Your task to perform on an android device: Go to wifi settings Image 0: 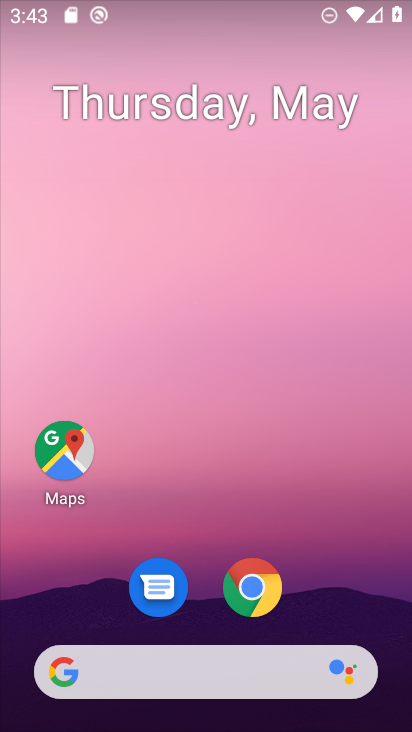
Step 0: drag from (369, 586) to (373, 171)
Your task to perform on an android device: Go to wifi settings Image 1: 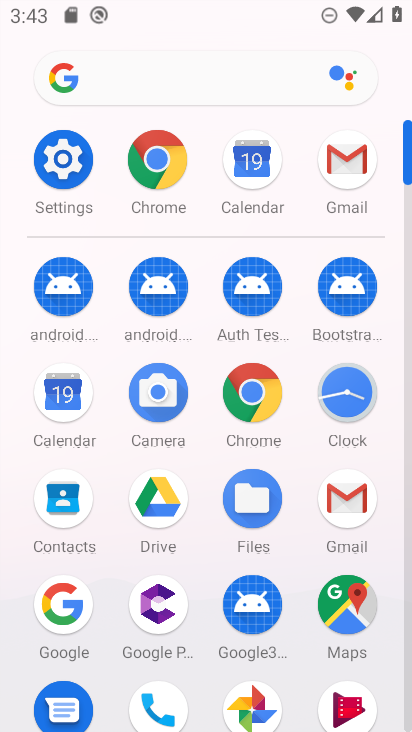
Step 1: click (95, 179)
Your task to perform on an android device: Go to wifi settings Image 2: 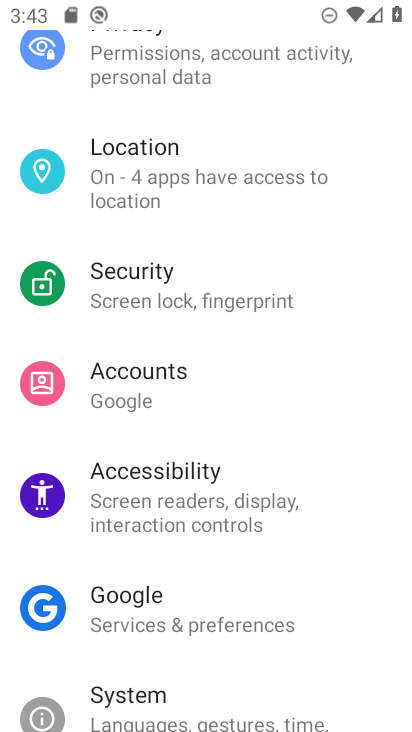
Step 2: drag from (305, 563) to (328, 423)
Your task to perform on an android device: Go to wifi settings Image 3: 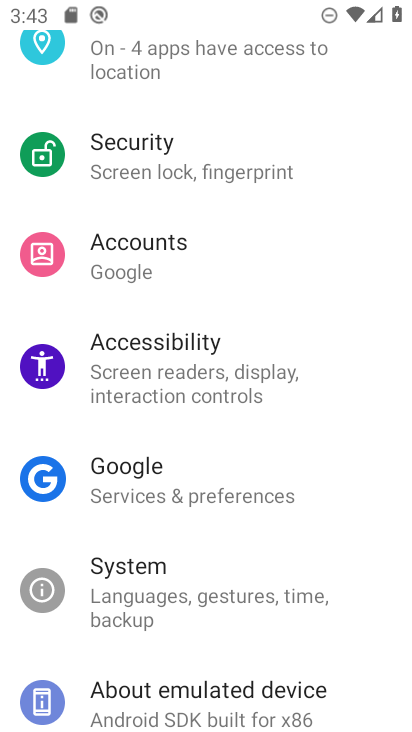
Step 3: drag from (339, 576) to (341, 450)
Your task to perform on an android device: Go to wifi settings Image 4: 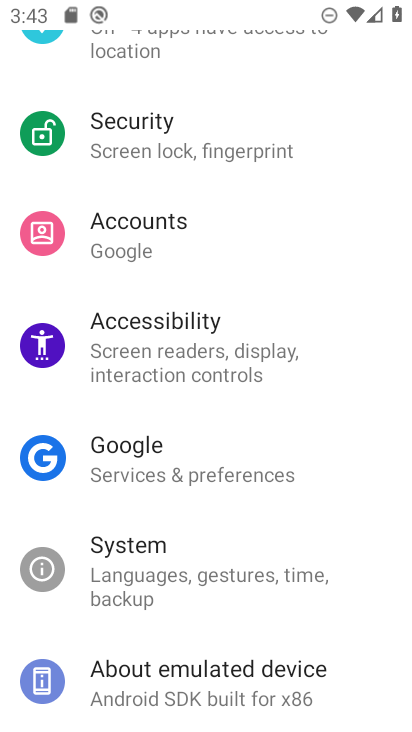
Step 4: drag from (342, 584) to (340, 443)
Your task to perform on an android device: Go to wifi settings Image 5: 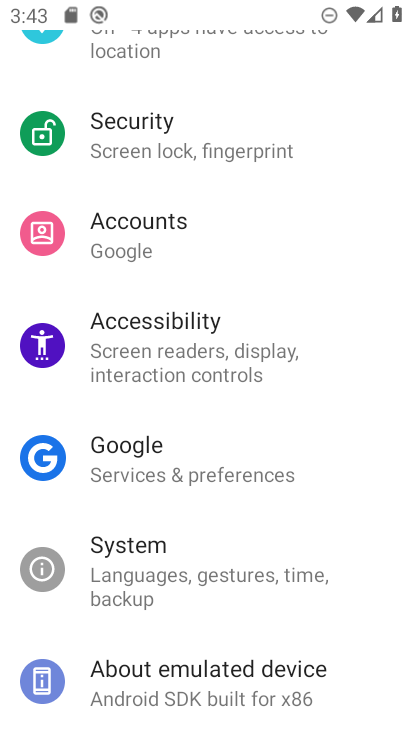
Step 5: drag from (363, 602) to (361, 380)
Your task to perform on an android device: Go to wifi settings Image 6: 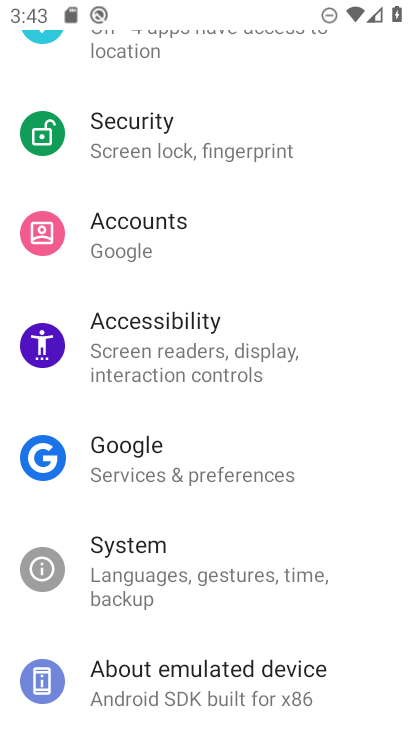
Step 6: drag from (333, 556) to (339, 389)
Your task to perform on an android device: Go to wifi settings Image 7: 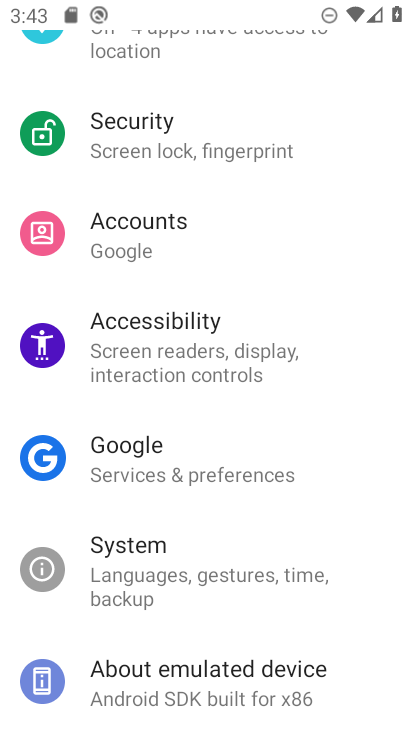
Step 7: drag from (354, 562) to (346, 414)
Your task to perform on an android device: Go to wifi settings Image 8: 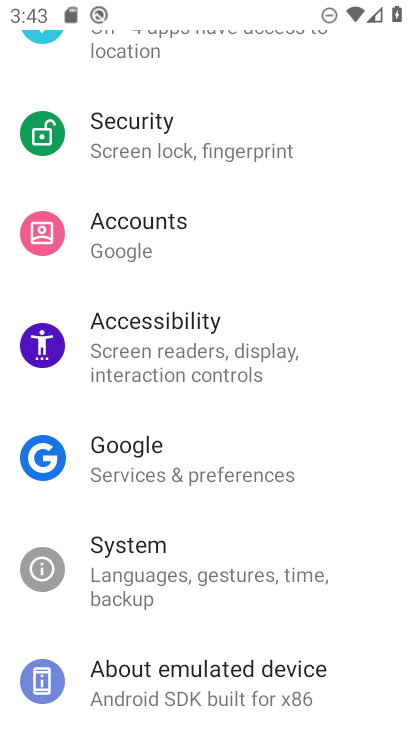
Step 8: drag from (343, 305) to (346, 491)
Your task to perform on an android device: Go to wifi settings Image 9: 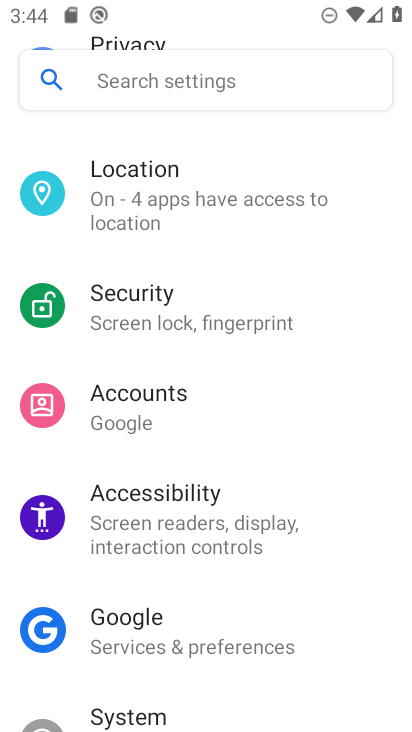
Step 9: drag from (345, 323) to (347, 424)
Your task to perform on an android device: Go to wifi settings Image 10: 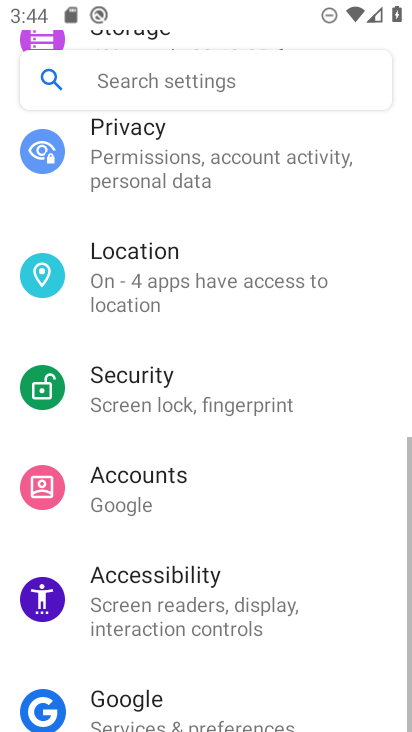
Step 10: drag from (345, 285) to (345, 372)
Your task to perform on an android device: Go to wifi settings Image 11: 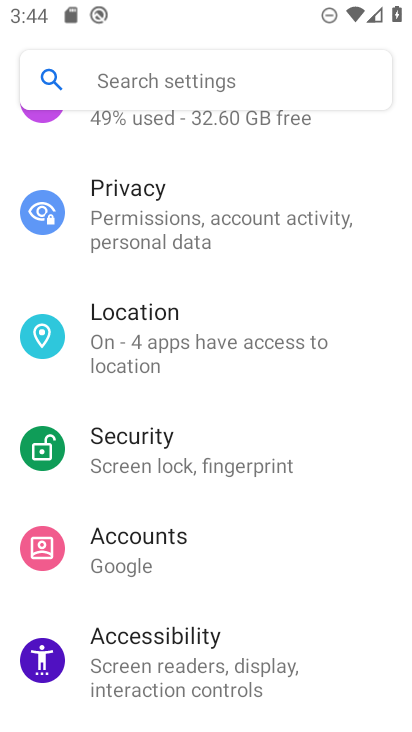
Step 11: drag from (356, 278) to (361, 413)
Your task to perform on an android device: Go to wifi settings Image 12: 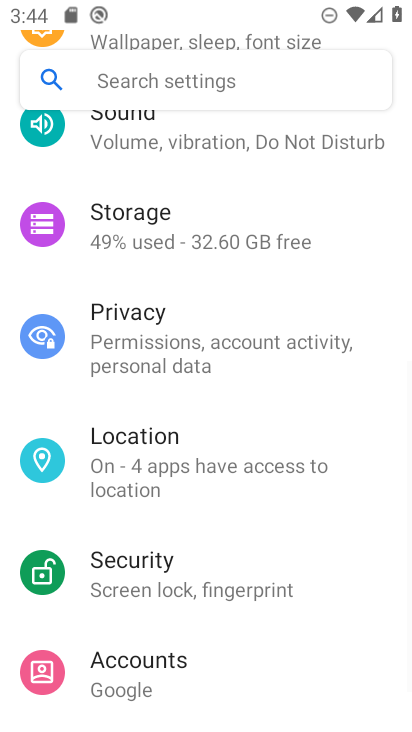
Step 12: drag from (360, 275) to (364, 434)
Your task to perform on an android device: Go to wifi settings Image 13: 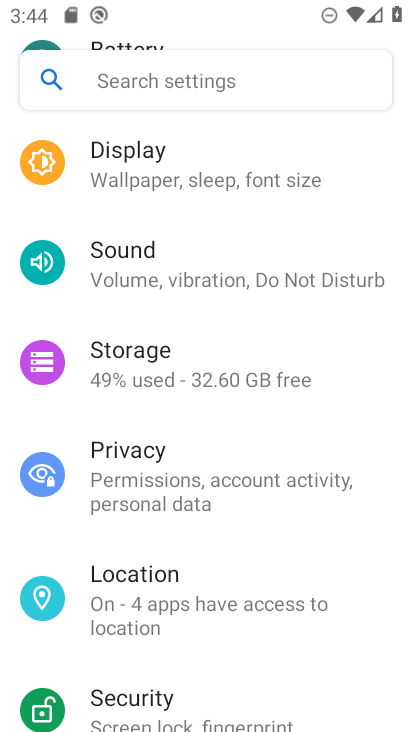
Step 13: drag from (349, 233) to (355, 361)
Your task to perform on an android device: Go to wifi settings Image 14: 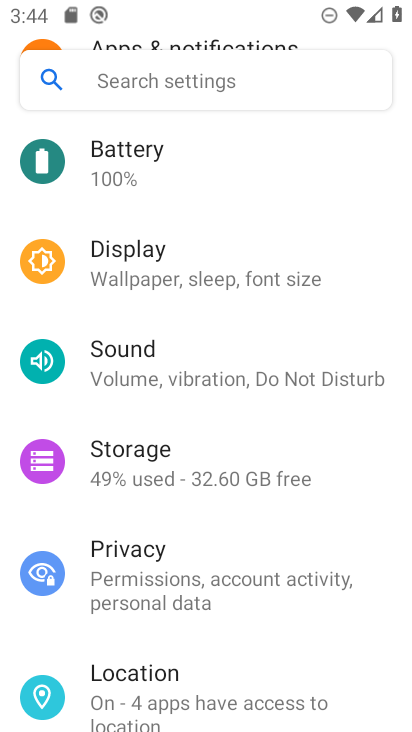
Step 14: drag from (343, 226) to (352, 358)
Your task to perform on an android device: Go to wifi settings Image 15: 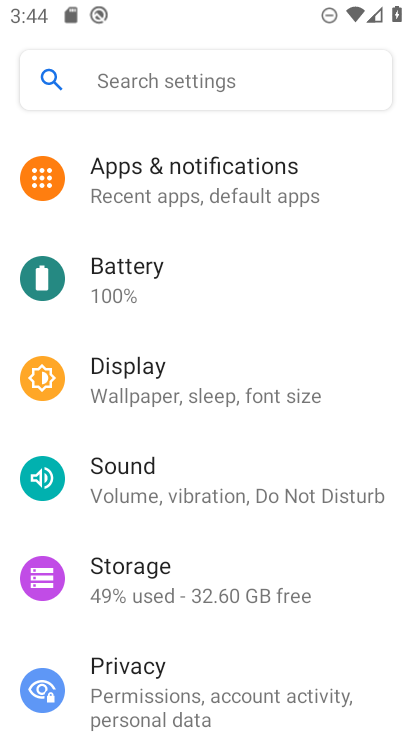
Step 15: drag from (347, 216) to (349, 333)
Your task to perform on an android device: Go to wifi settings Image 16: 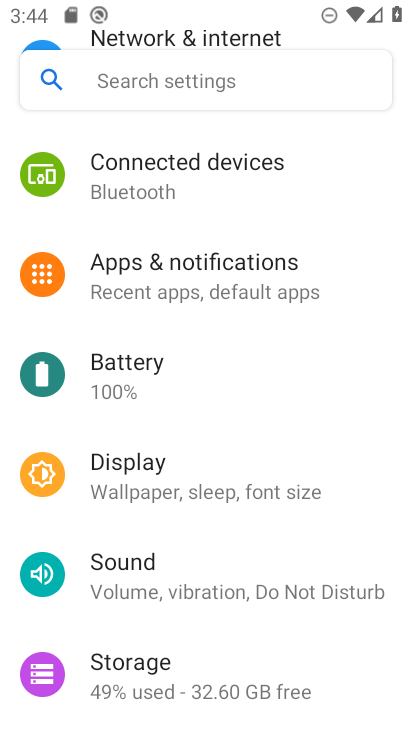
Step 16: drag from (363, 188) to (356, 318)
Your task to perform on an android device: Go to wifi settings Image 17: 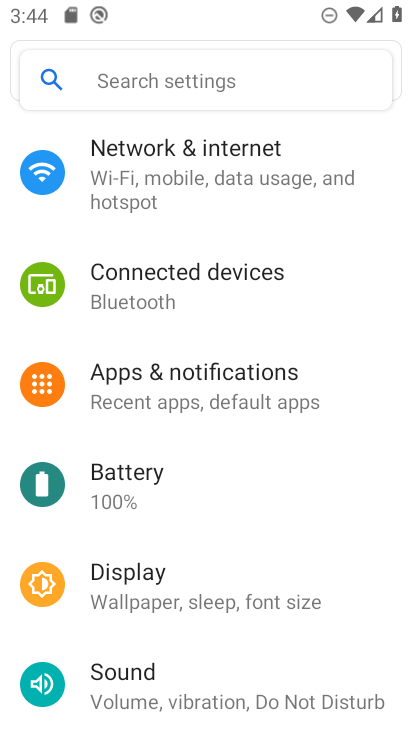
Step 17: click (328, 177)
Your task to perform on an android device: Go to wifi settings Image 18: 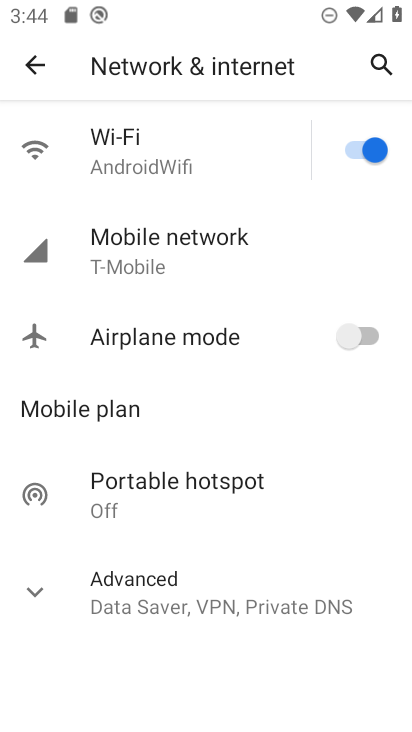
Step 18: click (221, 167)
Your task to perform on an android device: Go to wifi settings Image 19: 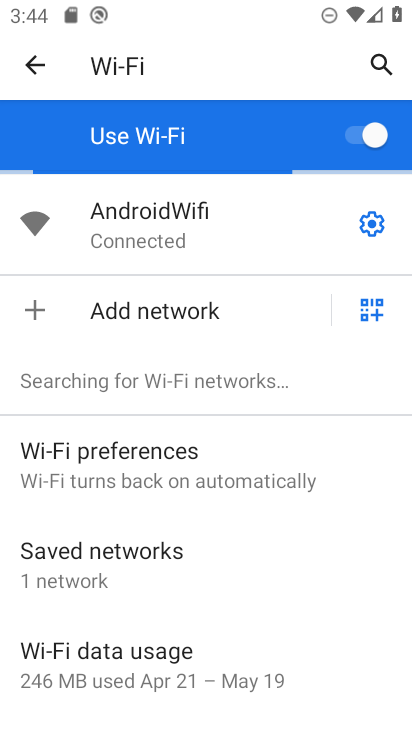
Step 19: task complete